Your task to perform on an android device: Open my contact list Image 0: 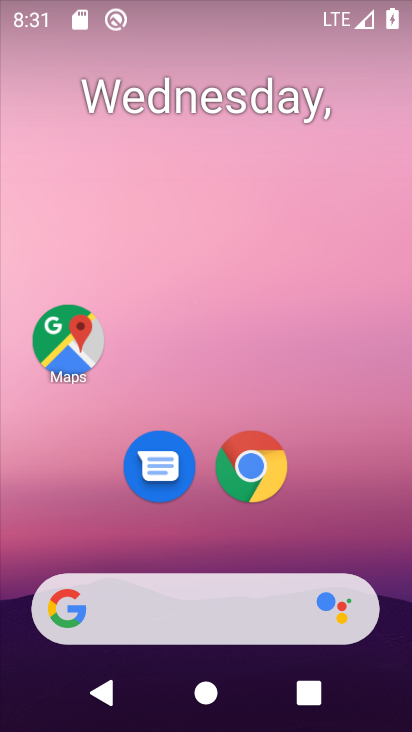
Step 0: drag from (233, 725) to (220, 178)
Your task to perform on an android device: Open my contact list Image 1: 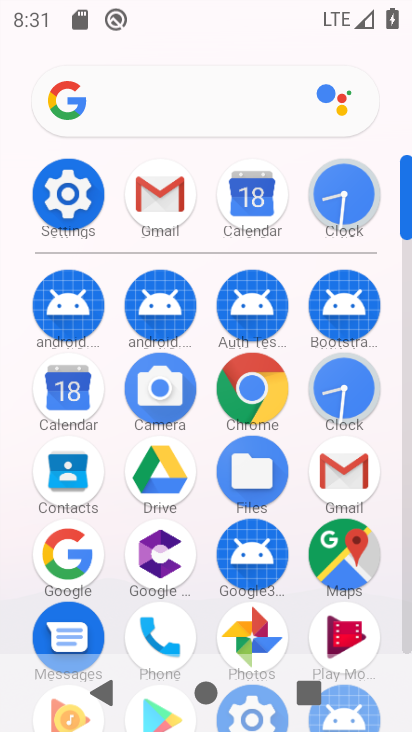
Step 1: click (68, 470)
Your task to perform on an android device: Open my contact list Image 2: 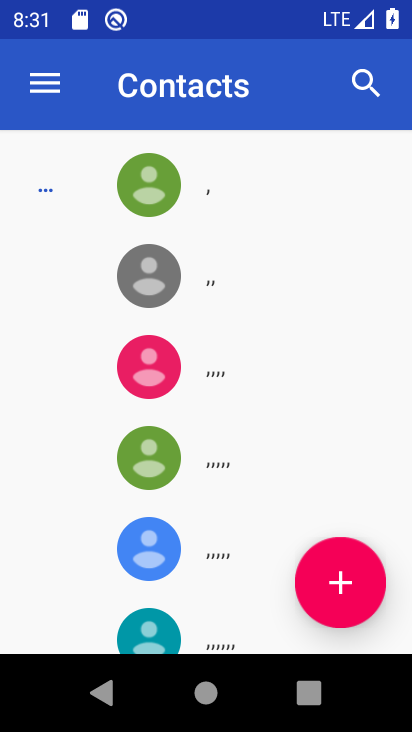
Step 2: task complete